Your task to perform on an android device: Open the phone app and click the voicemail tab. Image 0: 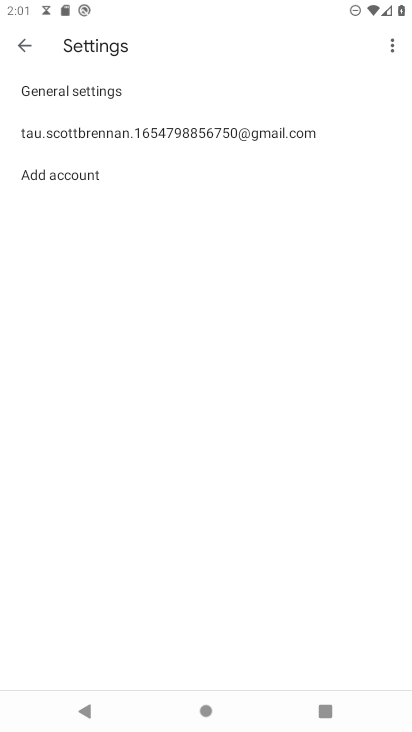
Step 0: press home button
Your task to perform on an android device: Open the phone app and click the voicemail tab. Image 1: 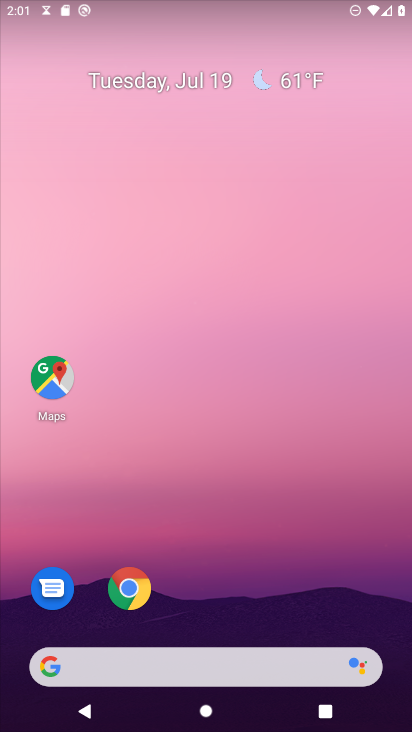
Step 1: drag from (283, 687) to (238, 107)
Your task to perform on an android device: Open the phone app and click the voicemail tab. Image 2: 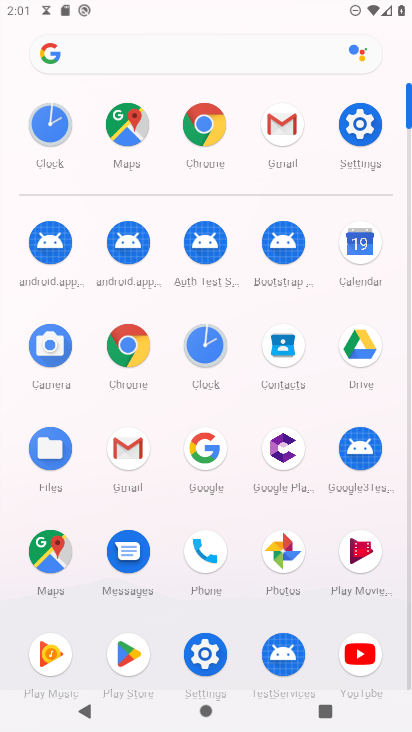
Step 2: click (211, 556)
Your task to perform on an android device: Open the phone app and click the voicemail tab. Image 3: 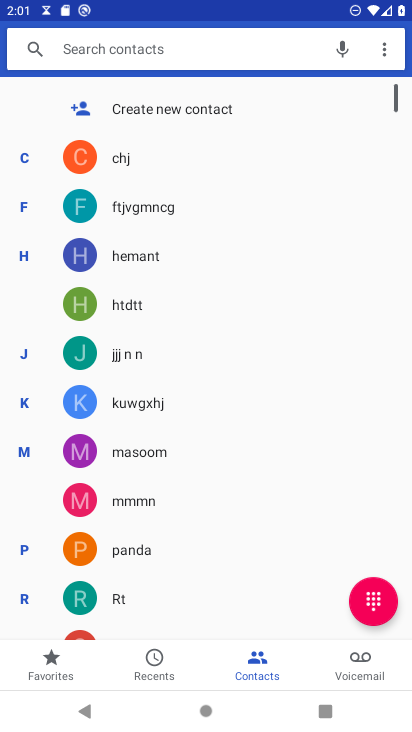
Step 3: click (355, 665)
Your task to perform on an android device: Open the phone app and click the voicemail tab. Image 4: 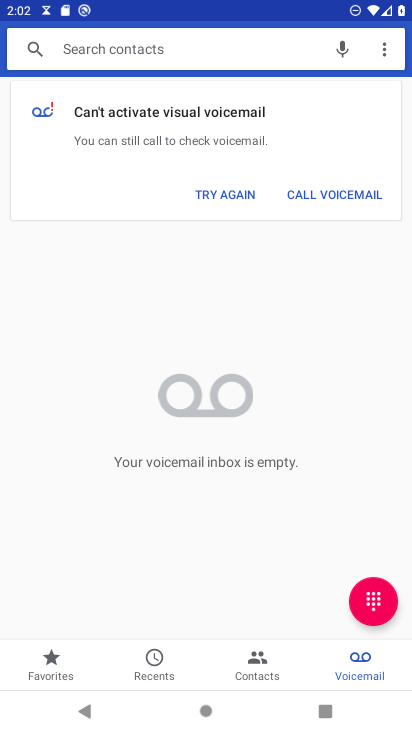
Step 4: task complete